Your task to perform on an android device: Search for the best rated 3d printer on Amazon. Image 0: 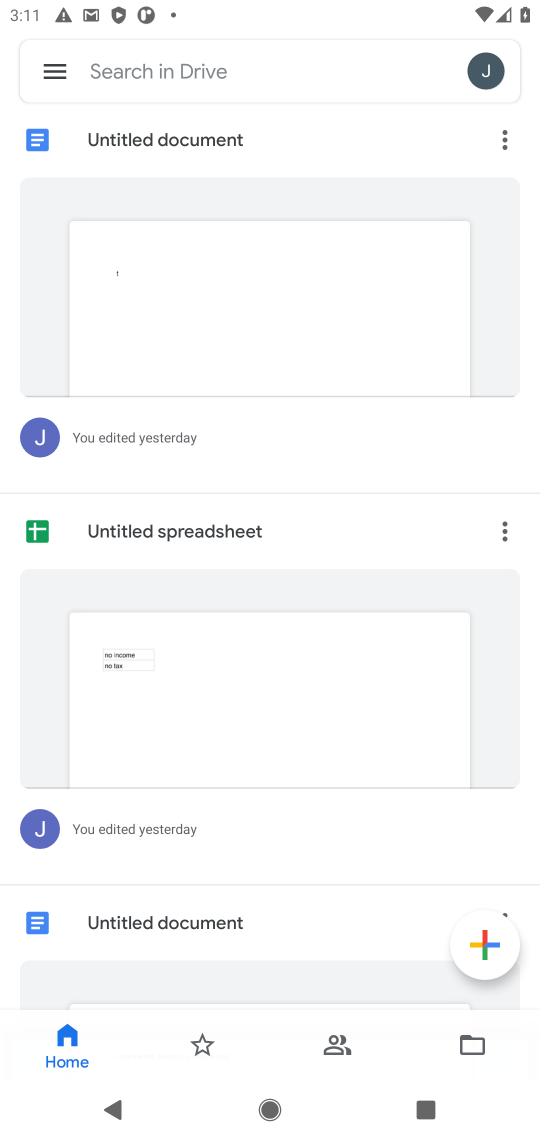
Step 0: press home button
Your task to perform on an android device: Search for the best rated 3d printer on Amazon. Image 1: 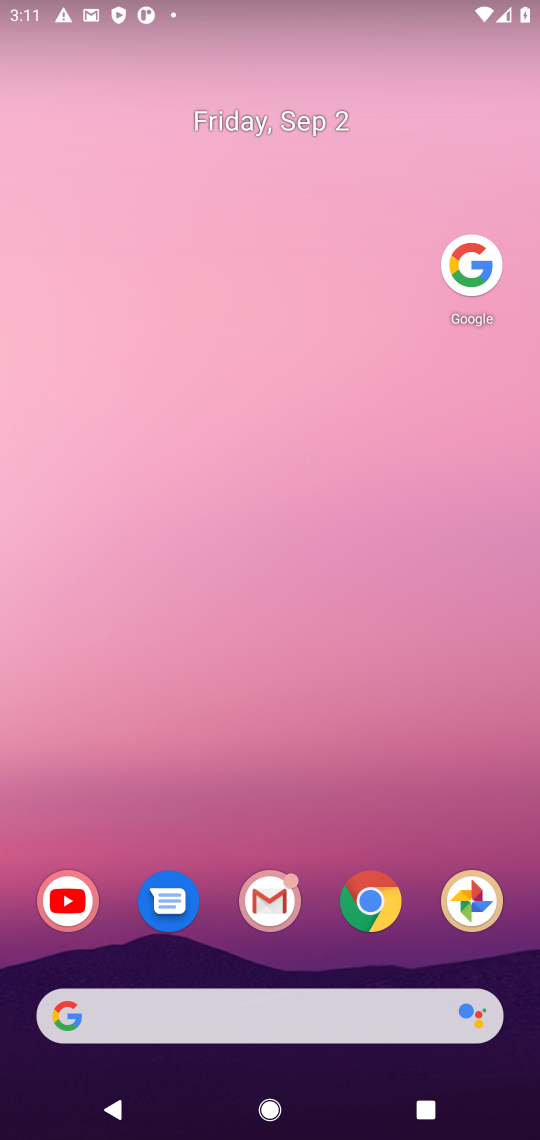
Step 1: click (453, 277)
Your task to perform on an android device: Search for the best rated 3d printer on Amazon. Image 2: 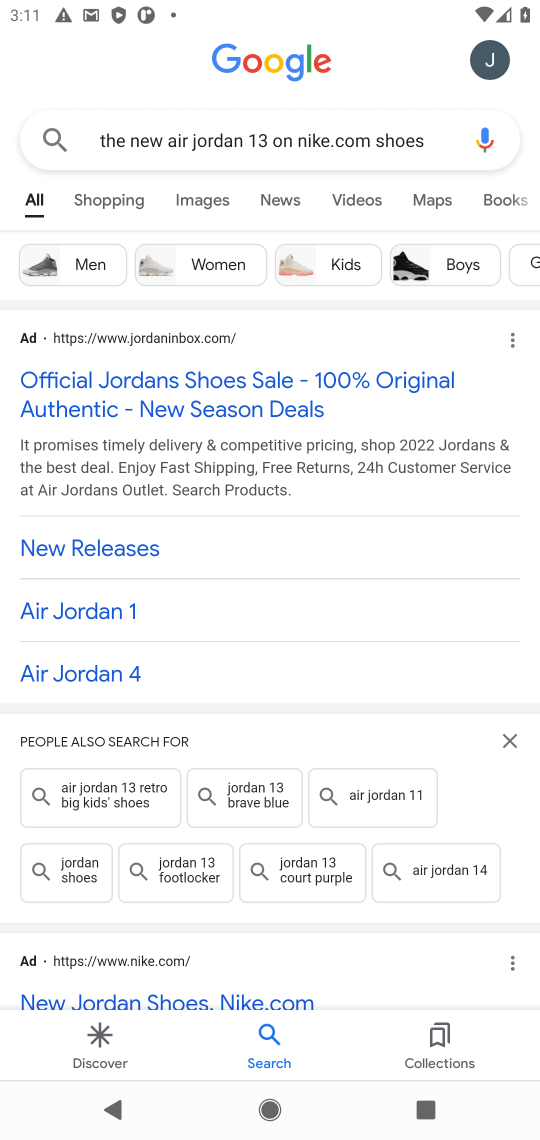
Step 2: click (389, 139)
Your task to perform on an android device: Search for the best rated 3d printer on Amazon. Image 3: 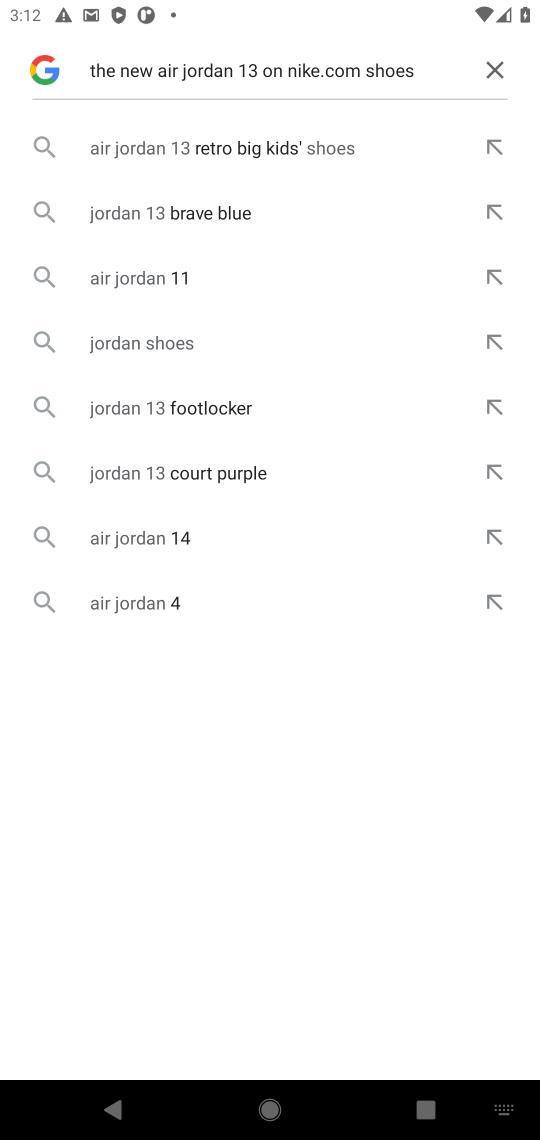
Step 3: click (506, 59)
Your task to perform on an android device: Search for the best rated 3d printer on Amazon. Image 4: 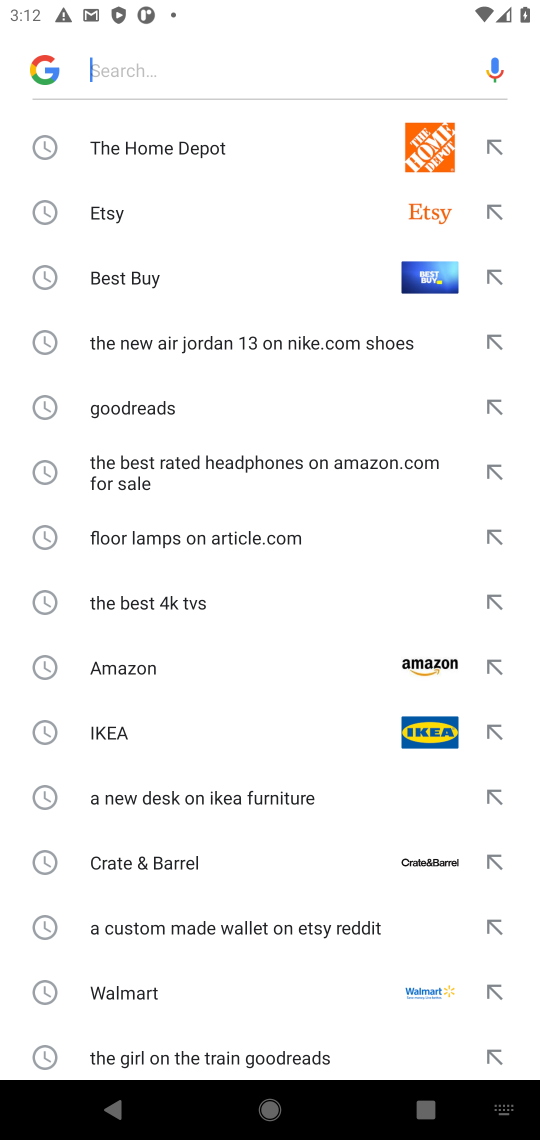
Step 4: click (215, 65)
Your task to perform on an android device: Search for the best rated 3d printer on Amazon. Image 5: 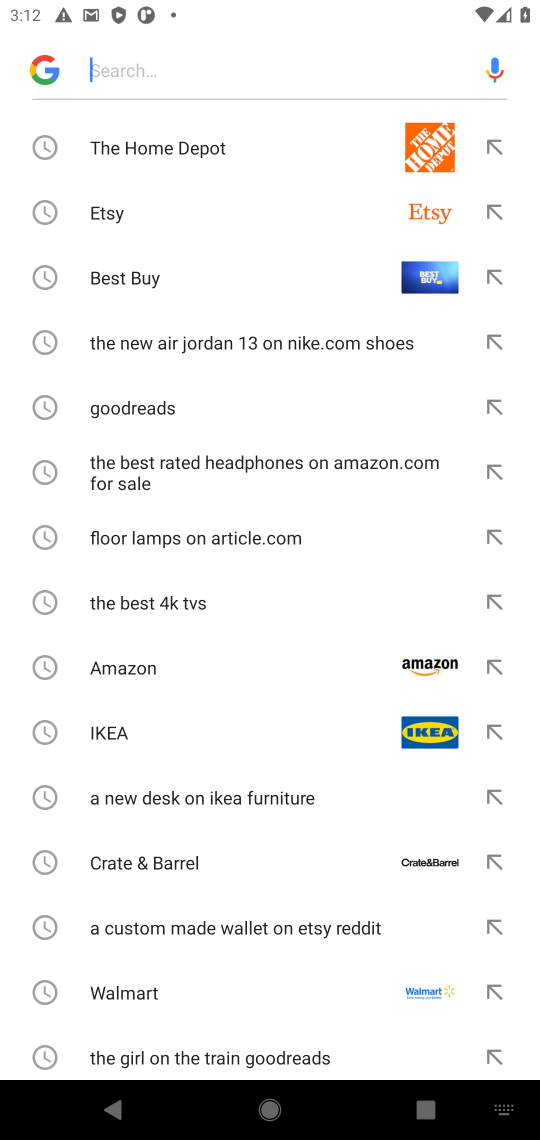
Step 5: type "the best rated 3d printer on Amazon "
Your task to perform on an android device: Search for the best rated 3d printer on Amazon. Image 6: 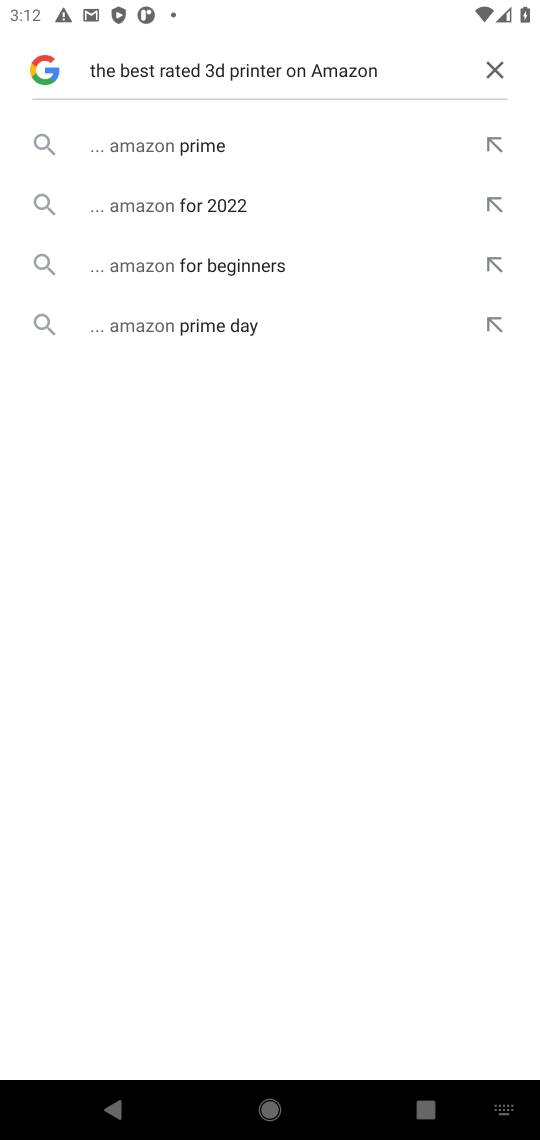
Step 6: click (183, 206)
Your task to perform on an android device: Search for the best rated 3d printer on Amazon. Image 7: 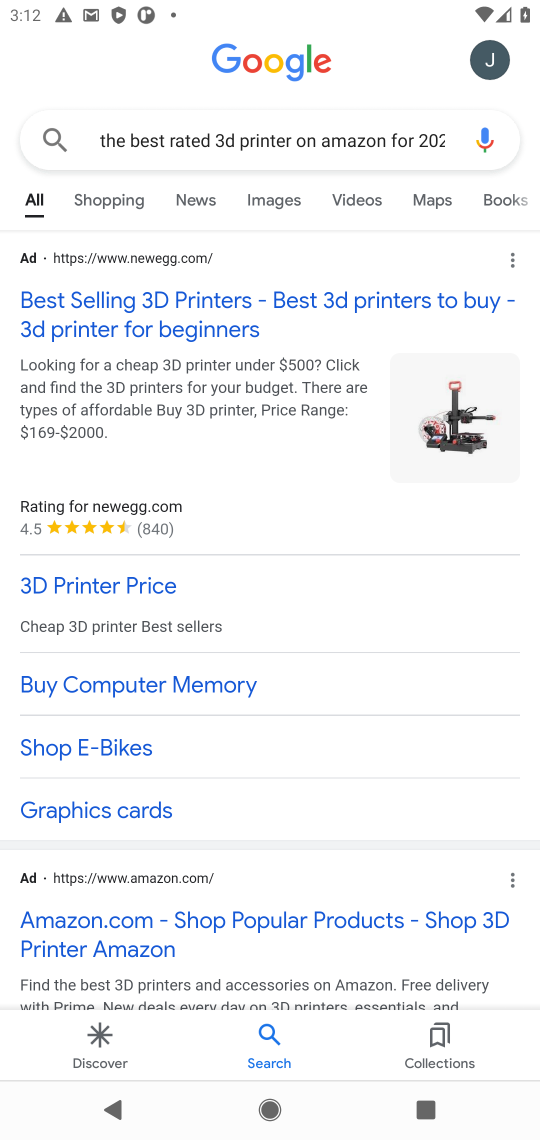
Step 7: click (219, 301)
Your task to perform on an android device: Search for the best rated 3d printer on Amazon. Image 8: 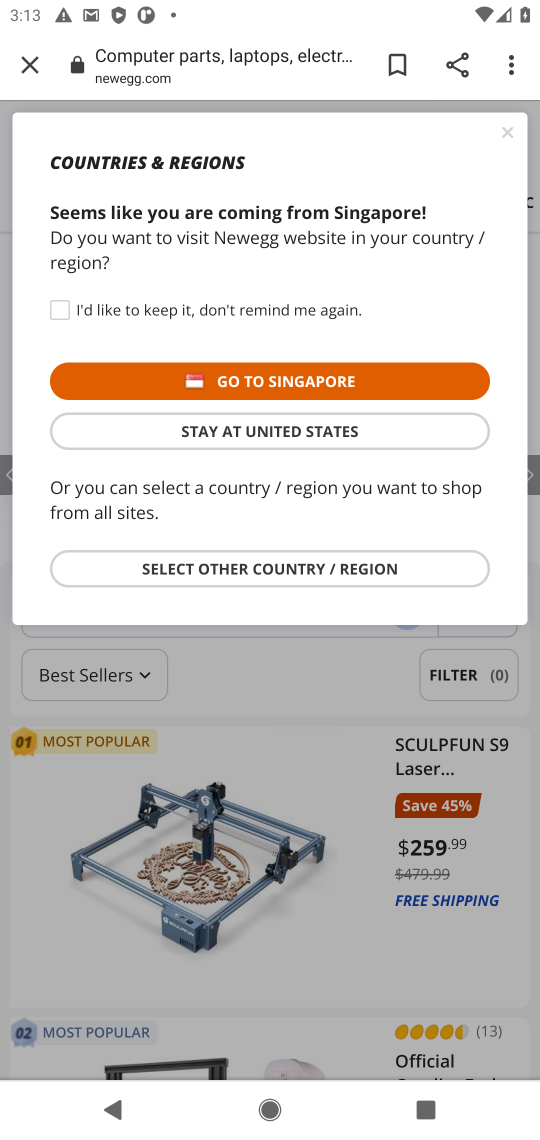
Step 8: task complete